Your task to perform on an android device: Open Amazon Image 0: 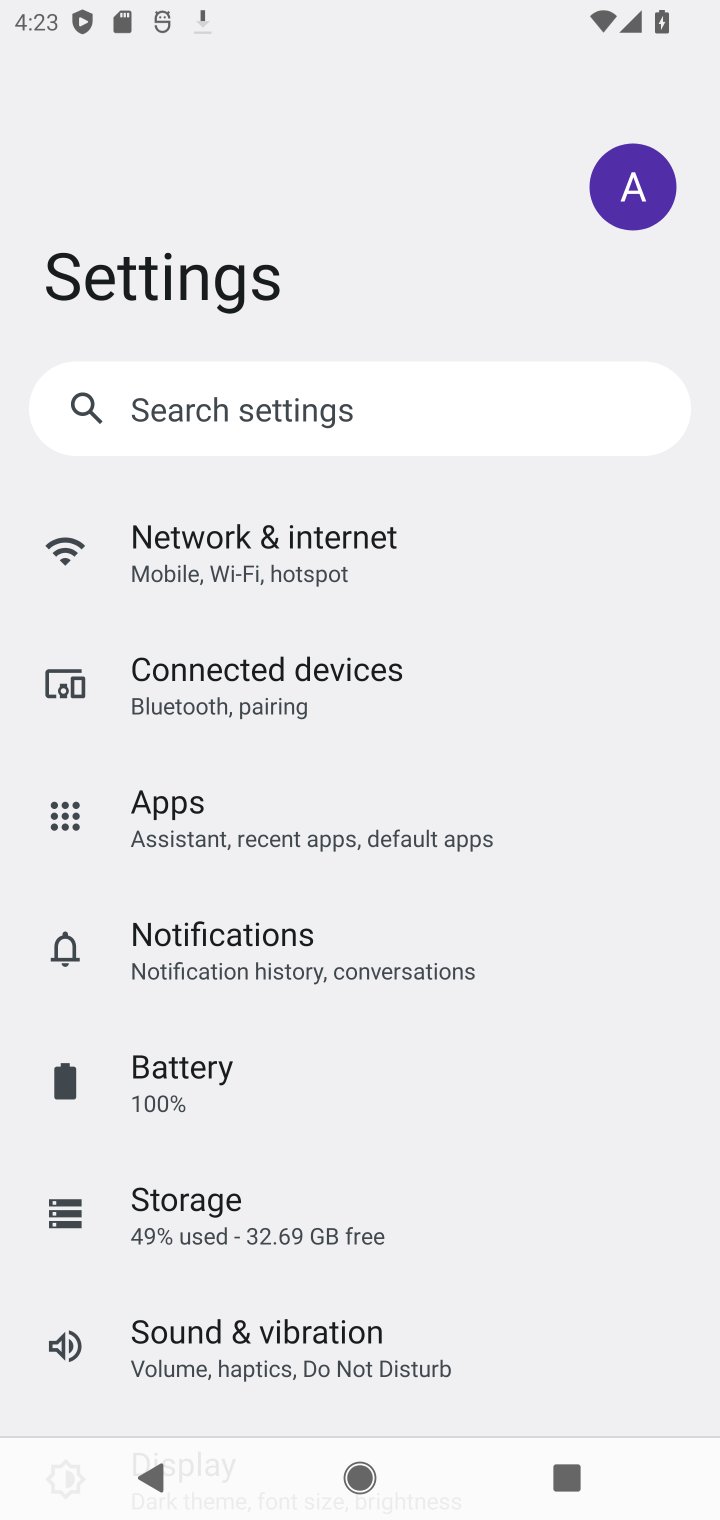
Step 0: press home button
Your task to perform on an android device: Open Amazon Image 1: 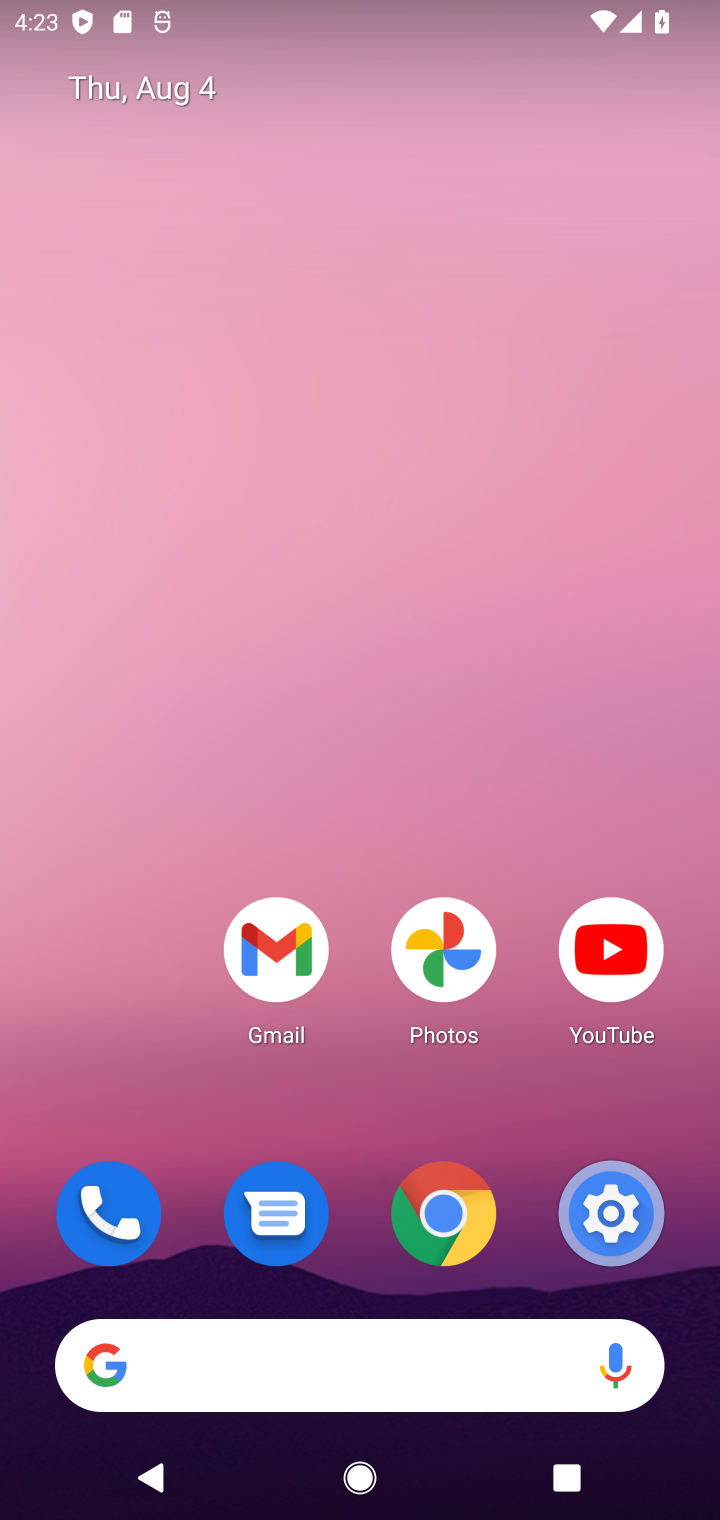
Step 1: click (441, 1216)
Your task to perform on an android device: Open Amazon Image 2: 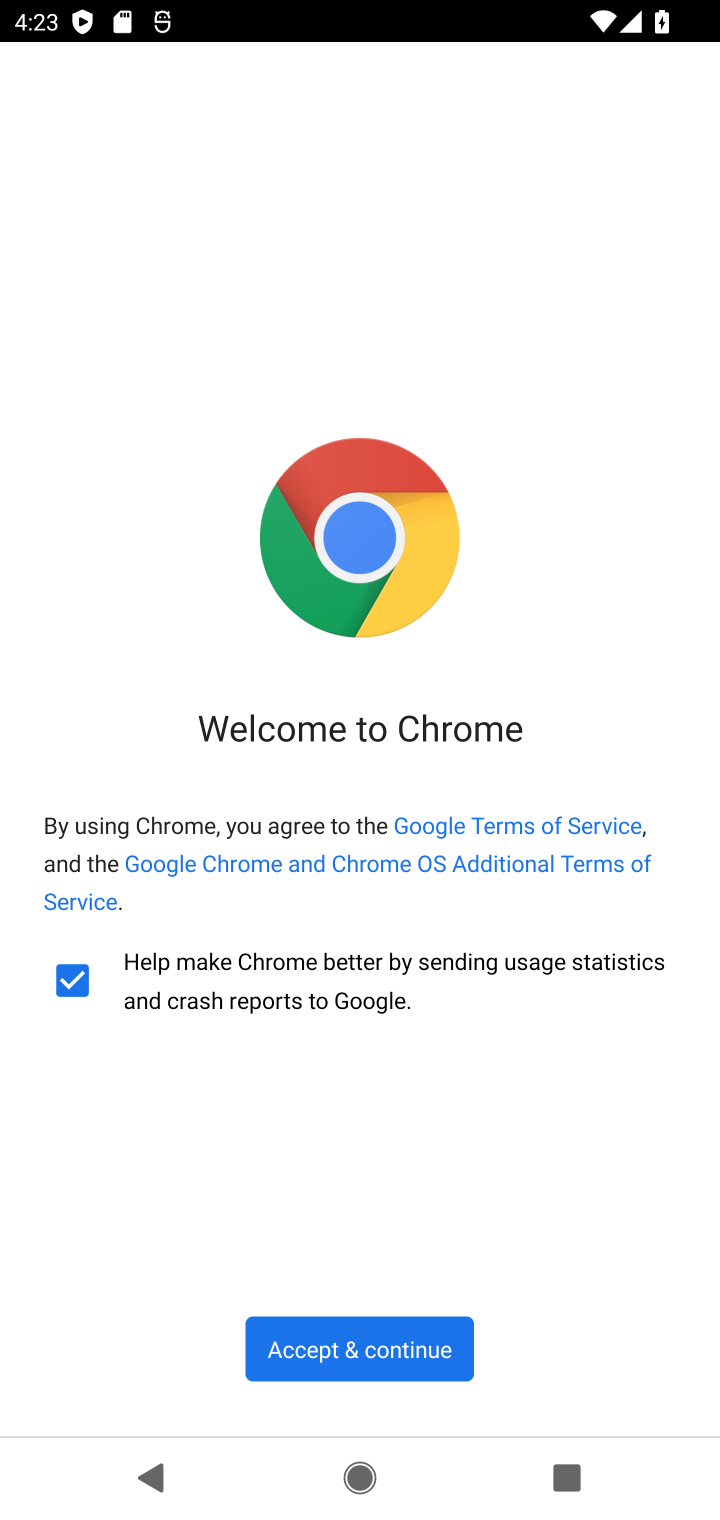
Step 2: click (368, 1345)
Your task to perform on an android device: Open Amazon Image 3: 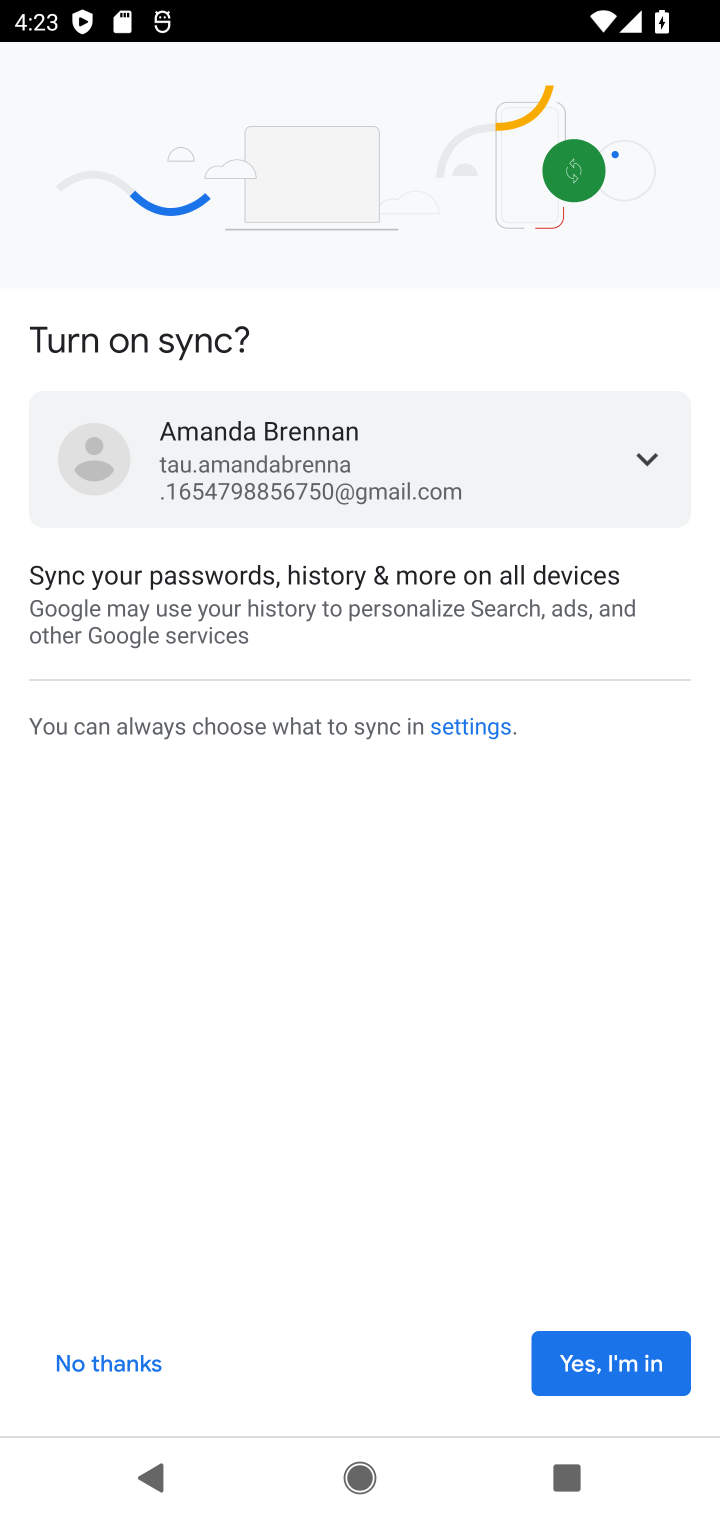
Step 3: click (555, 1361)
Your task to perform on an android device: Open Amazon Image 4: 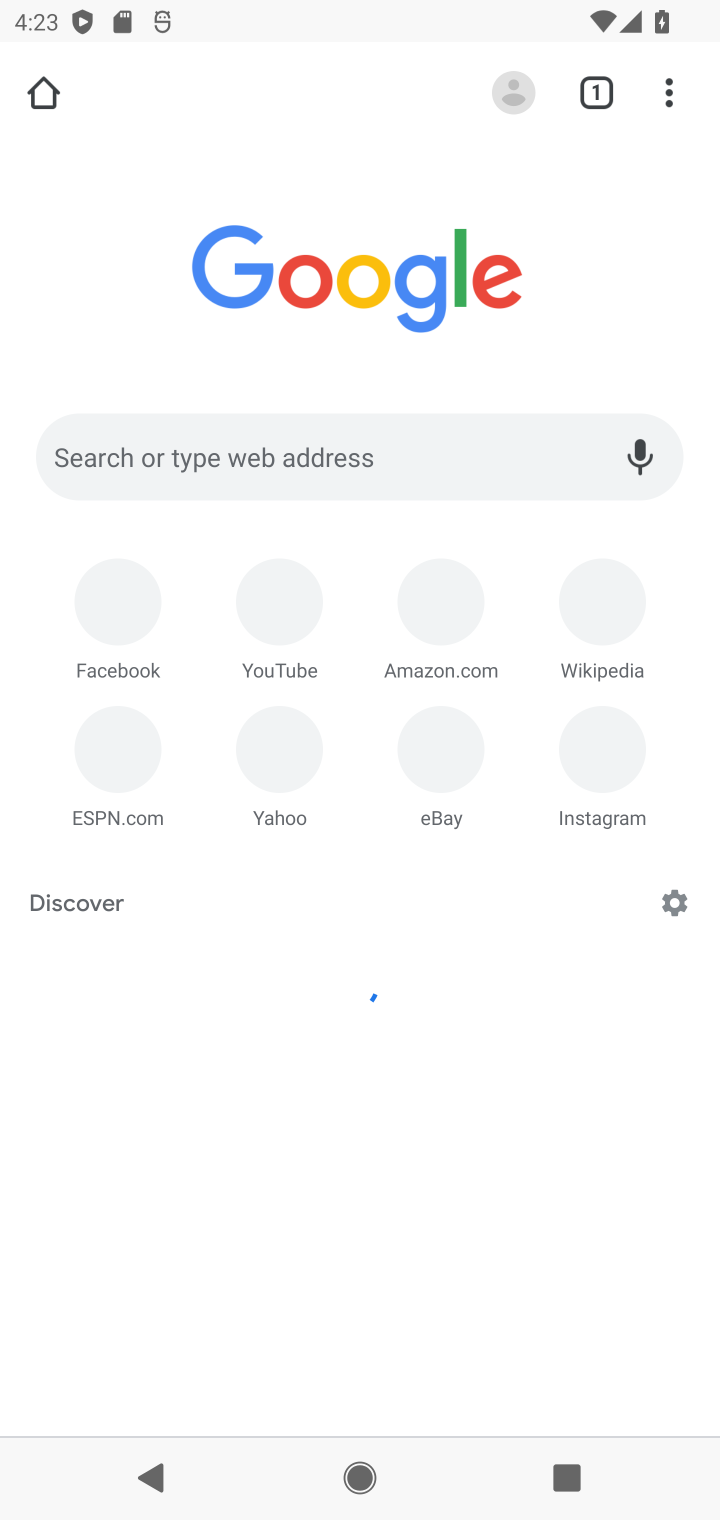
Step 4: click (607, 1374)
Your task to perform on an android device: Open Amazon Image 5: 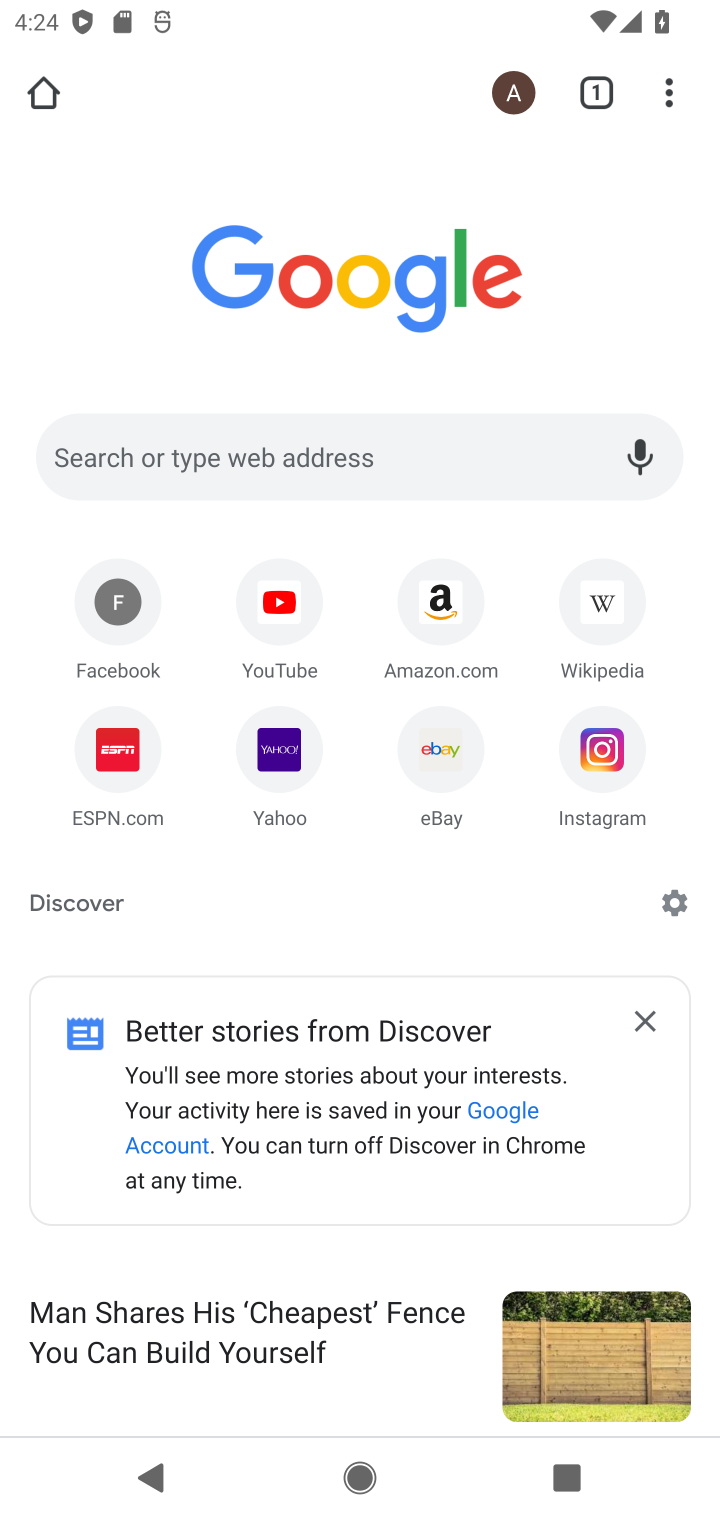
Step 5: click (428, 624)
Your task to perform on an android device: Open Amazon Image 6: 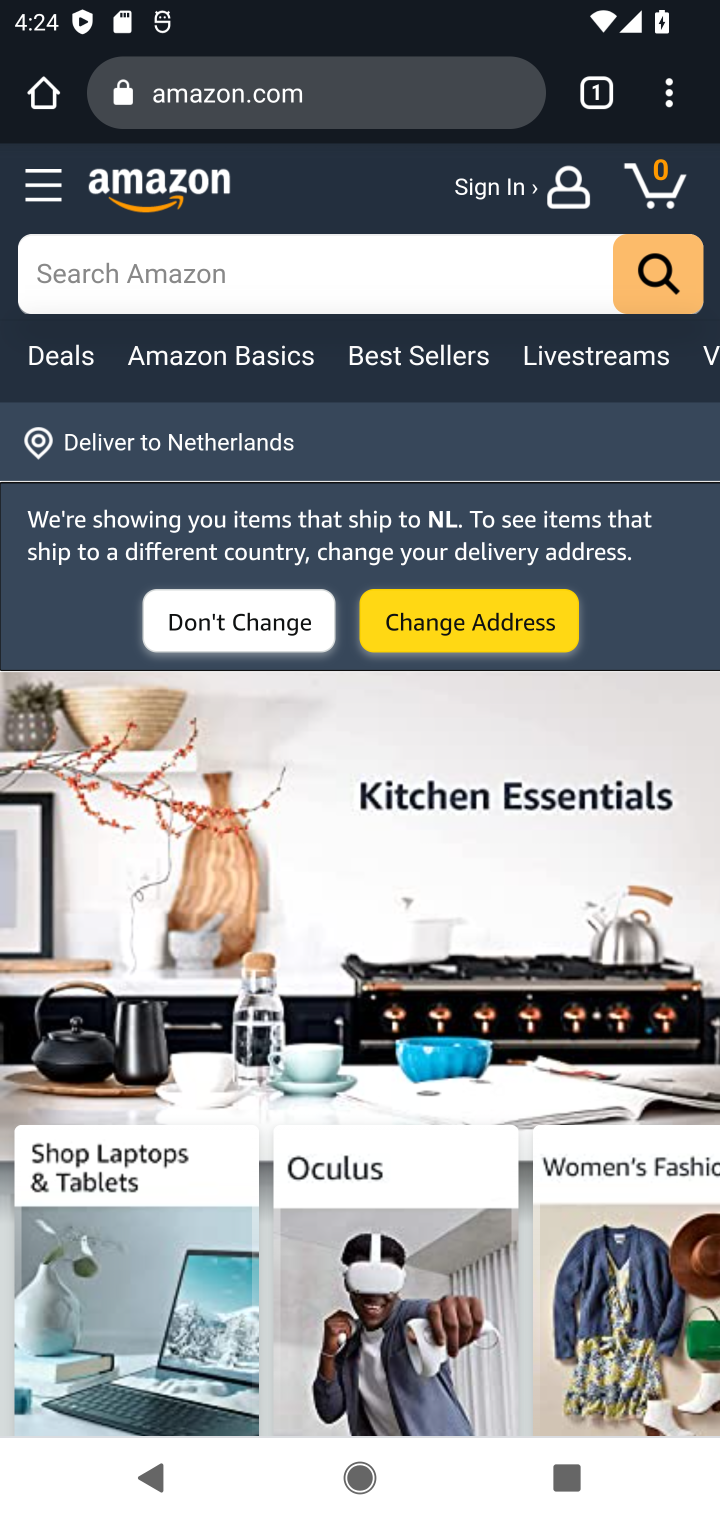
Step 6: task complete